Your task to perform on an android device: turn on javascript in the chrome app Image 0: 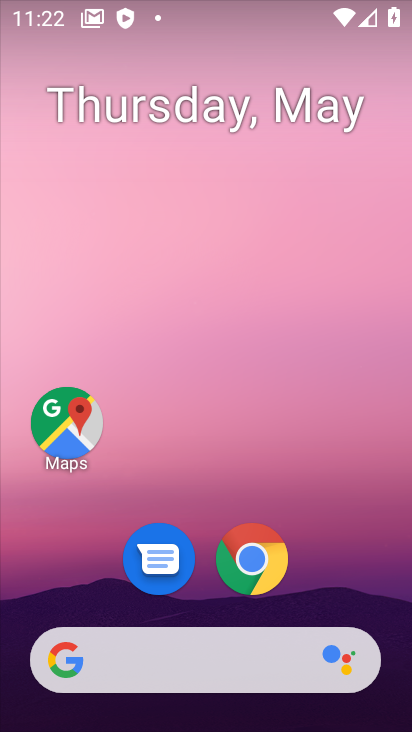
Step 0: click (253, 554)
Your task to perform on an android device: turn on javascript in the chrome app Image 1: 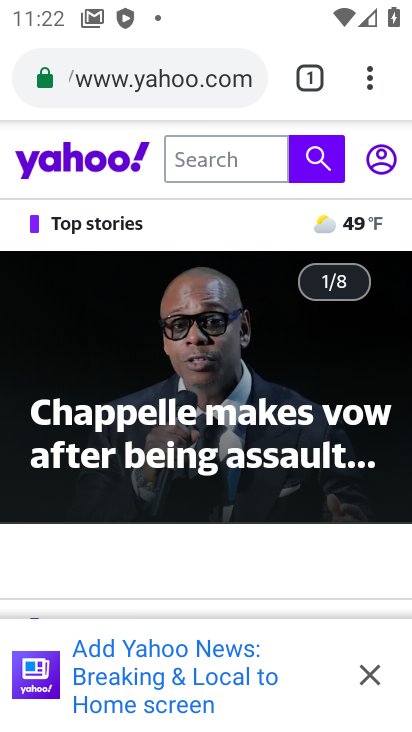
Step 1: drag from (371, 81) to (179, 610)
Your task to perform on an android device: turn on javascript in the chrome app Image 2: 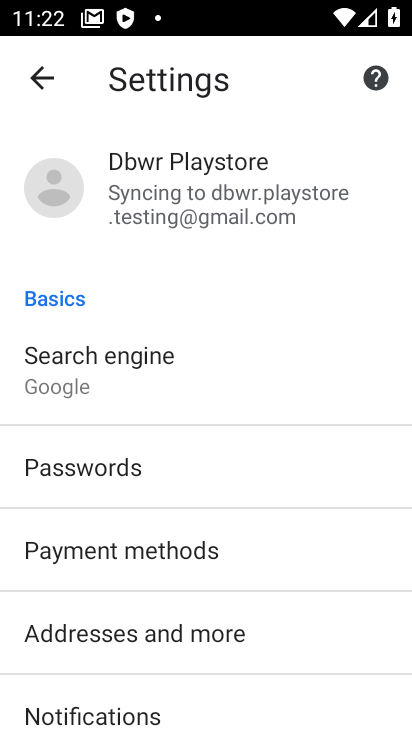
Step 2: drag from (199, 694) to (199, 309)
Your task to perform on an android device: turn on javascript in the chrome app Image 3: 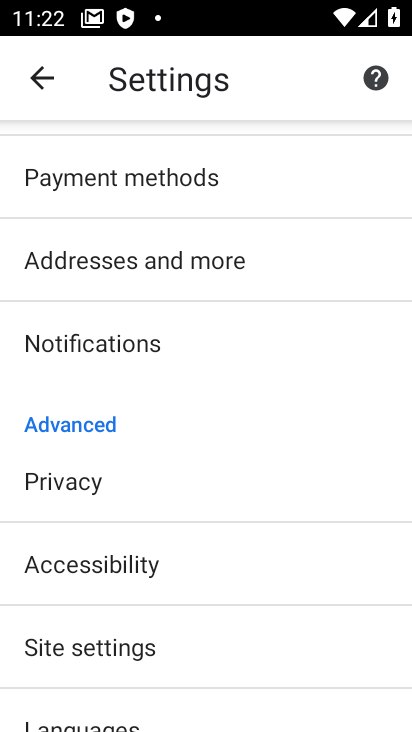
Step 3: click (147, 639)
Your task to perform on an android device: turn on javascript in the chrome app Image 4: 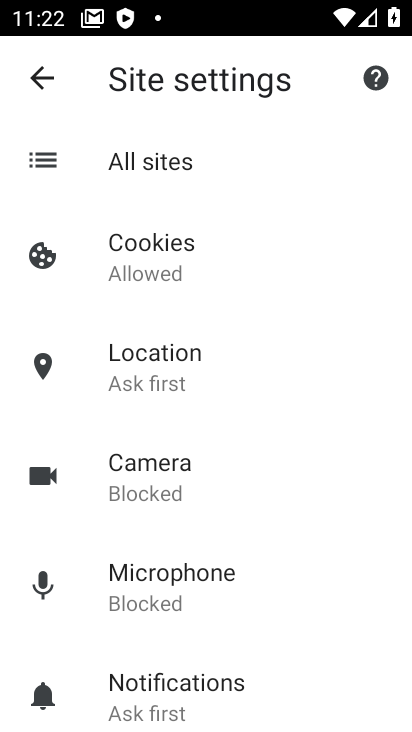
Step 4: drag from (197, 660) to (200, 283)
Your task to perform on an android device: turn on javascript in the chrome app Image 5: 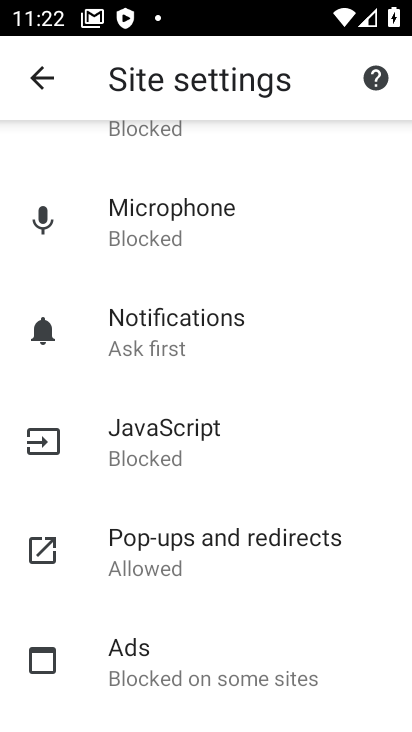
Step 5: click (159, 437)
Your task to perform on an android device: turn on javascript in the chrome app Image 6: 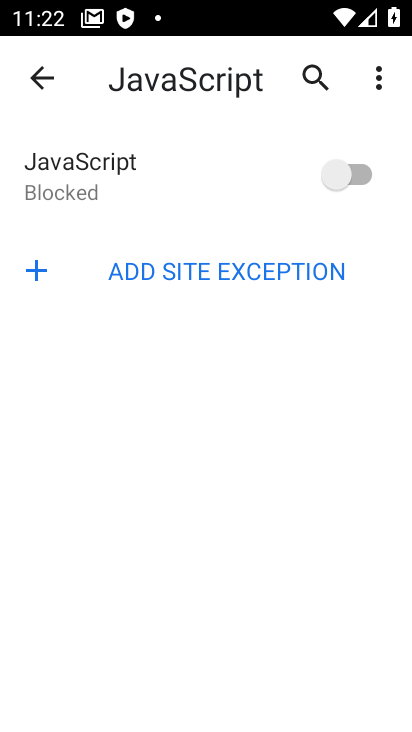
Step 6: click (358, 168)
Your task to perform on an android device: turn on javascript in the chrome app Image 7: 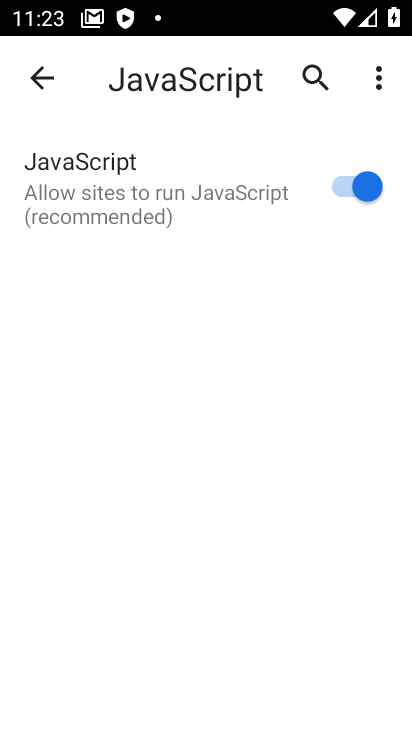
Step 7: task complete